Your task to perform on an android device: When is my next meeting? Image 0: 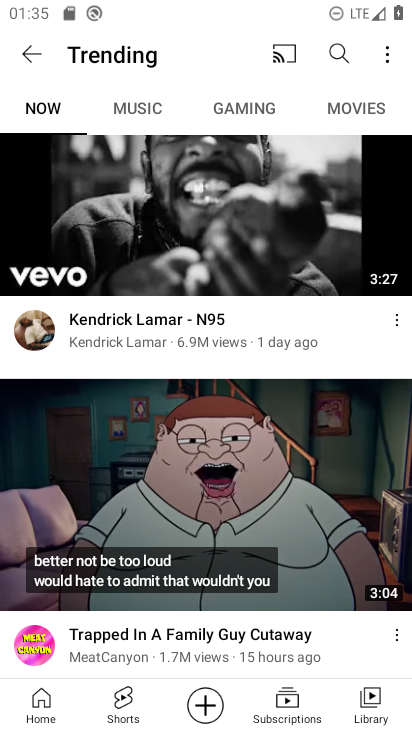
Step 0: press home button
Your task to perform on an android device: When is my next meeting? Image 1: 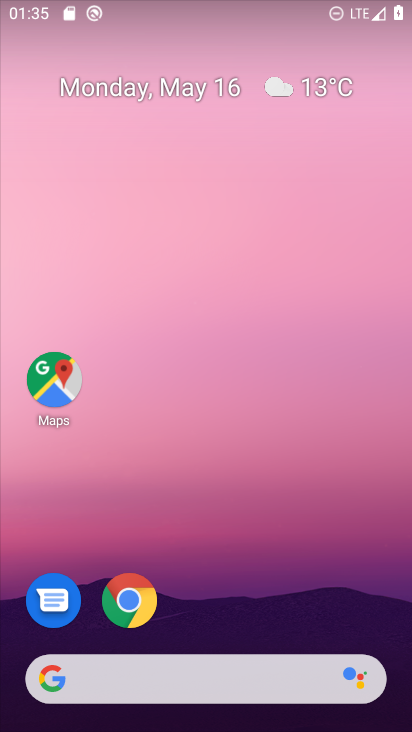
Step 1: drag from (213, 634) to (297, 95)
Your task to perform on an android device: When is my next meeting? Image 2: 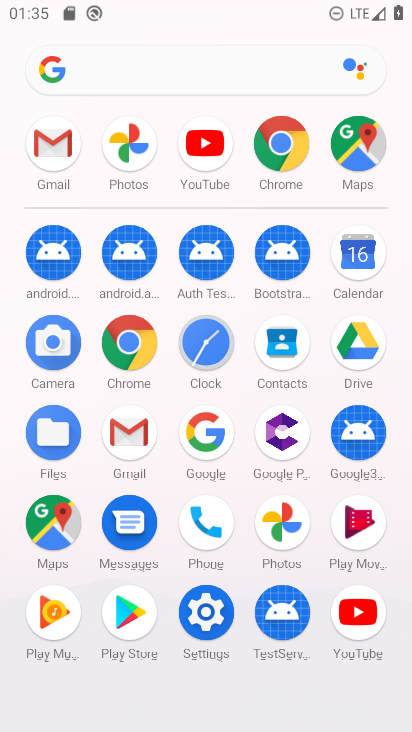
Step 2: click (350, 247)
Your task to perform on an android device: When is my next meeting? Image 3: 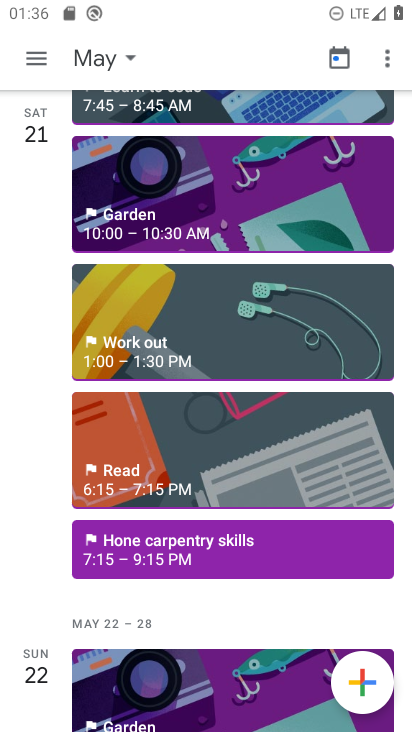
Step 3: task complete